Your task to perform on an android device: turn on bluetooth scan Image 0: 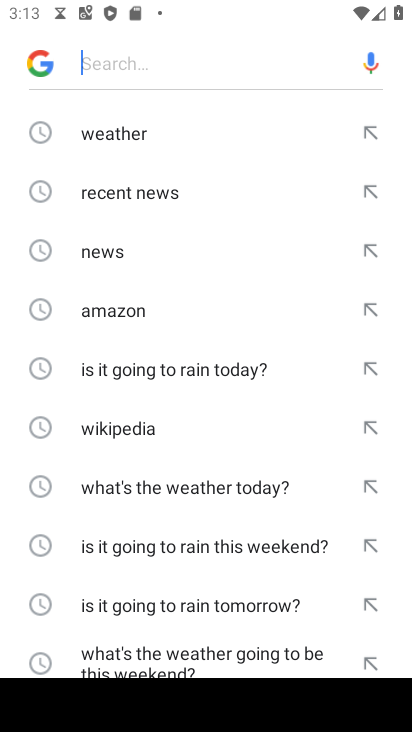
Step 0: press home button
Your task to perform on an android device: turn on bluetooth scan Image 1: 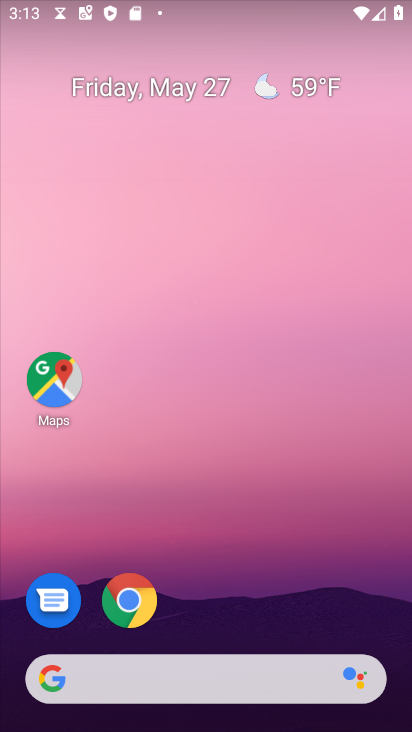
Step 1: drag from (260, 590) to (172, 107)
Your task to perform on an android device: turn on bluetooth scan Image 2: 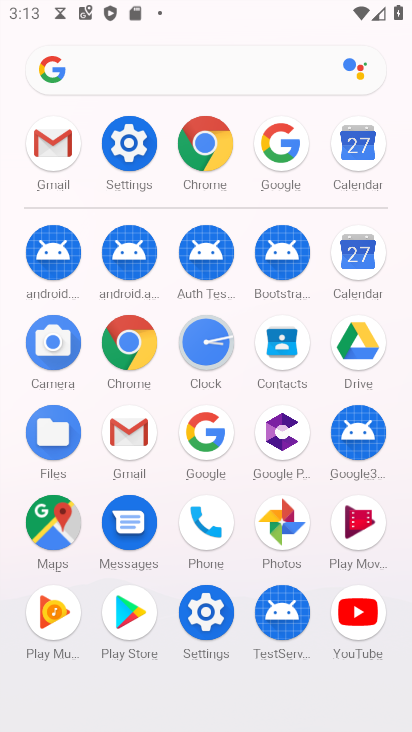
Step 2: click (206, 608)
Your task to perform on an android device: turn on bluetooth scan Image 3: 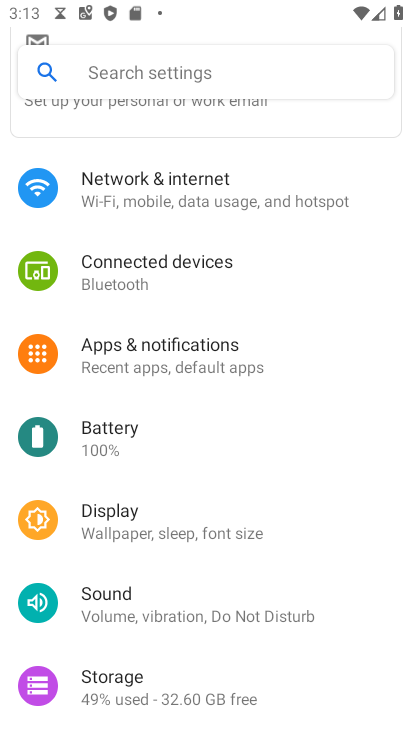
Step 3: drag from (201, 593) to (245, 472)
Your task to perform on an android device: turn on bluetooth scan Image 4: 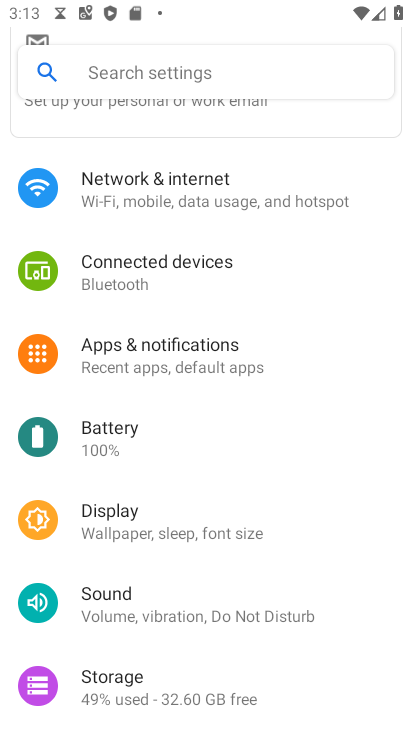
Step 4: drag from (190, 651) to (246, 412)
Your task to perform on an android device: turn on bluetooth scan Image 5: 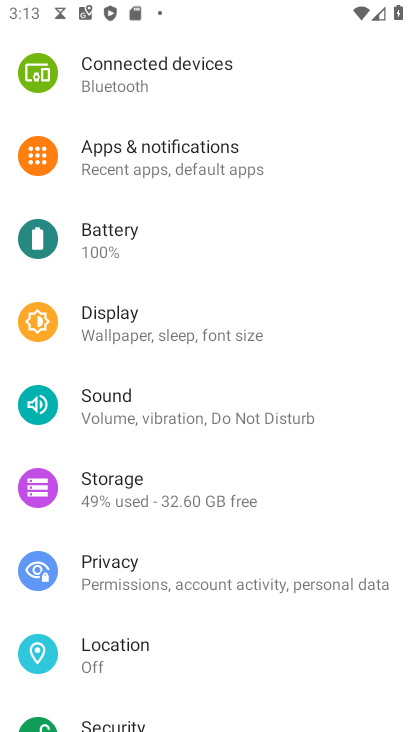
Step 5: click (141, 646)
Your task to perform on an android device: turn on bluetooth scan Image 6: 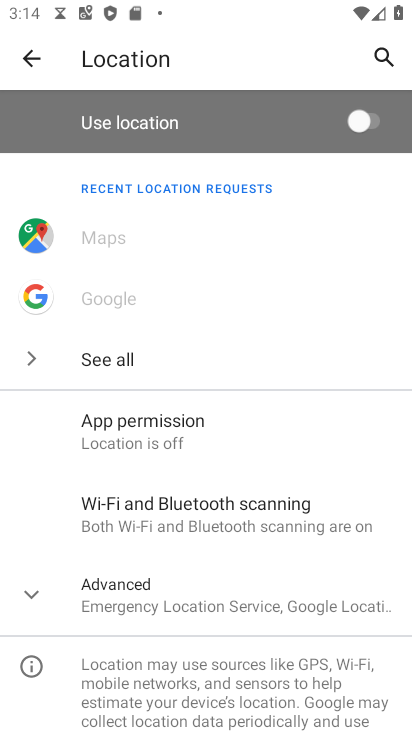
Step 6: click (201, 509)
Your task to perform on an android device: turn on bluetooth scan Image 7: 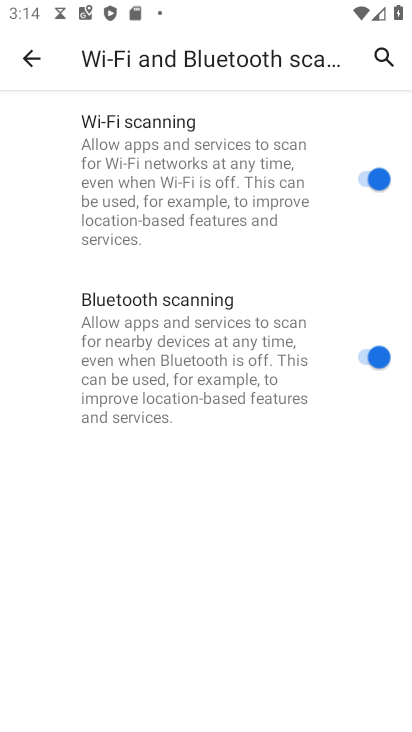
Step 7: task complete